Your task to perform on an android device: Open Android settings Image 0: 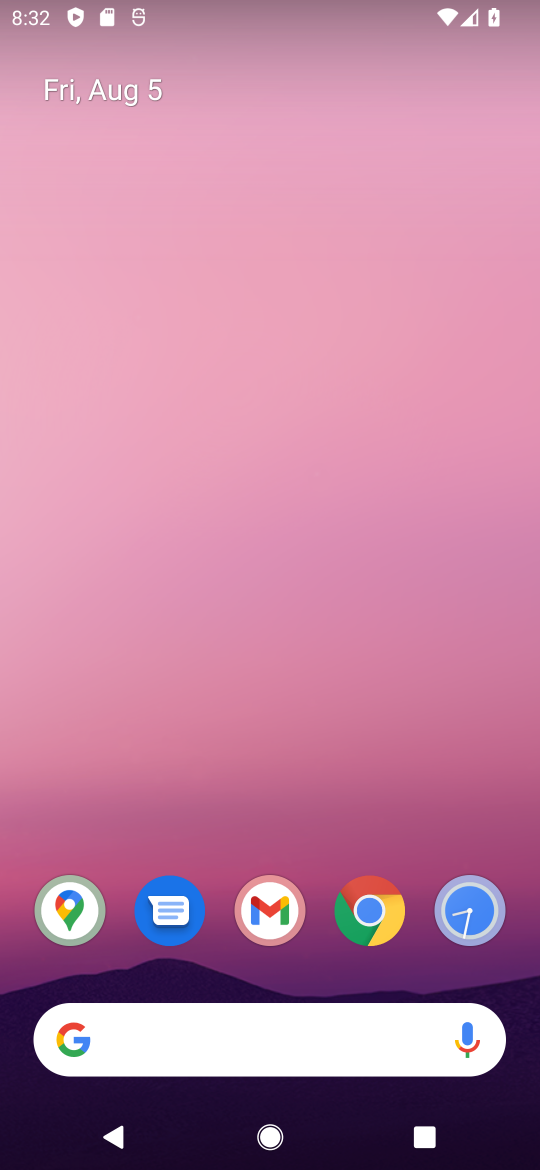
Step 0: press home button
Your task to perform on an android device: Open Android settings Image 1: 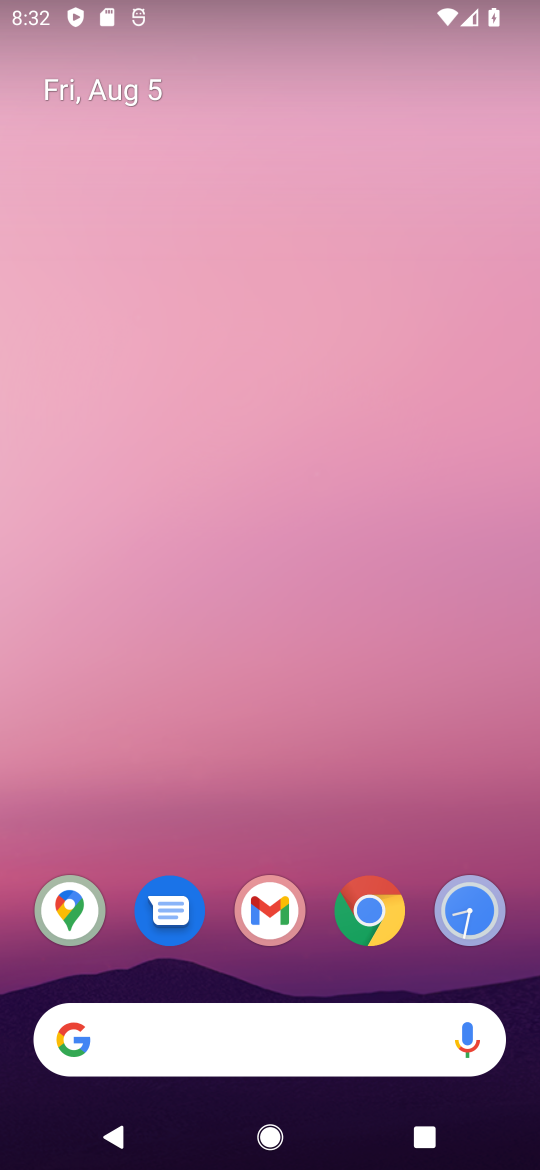
Step 1: drag from (257, 1040) to (393, 96)
Your task to perform on an android device: Open Android settings Image 2: 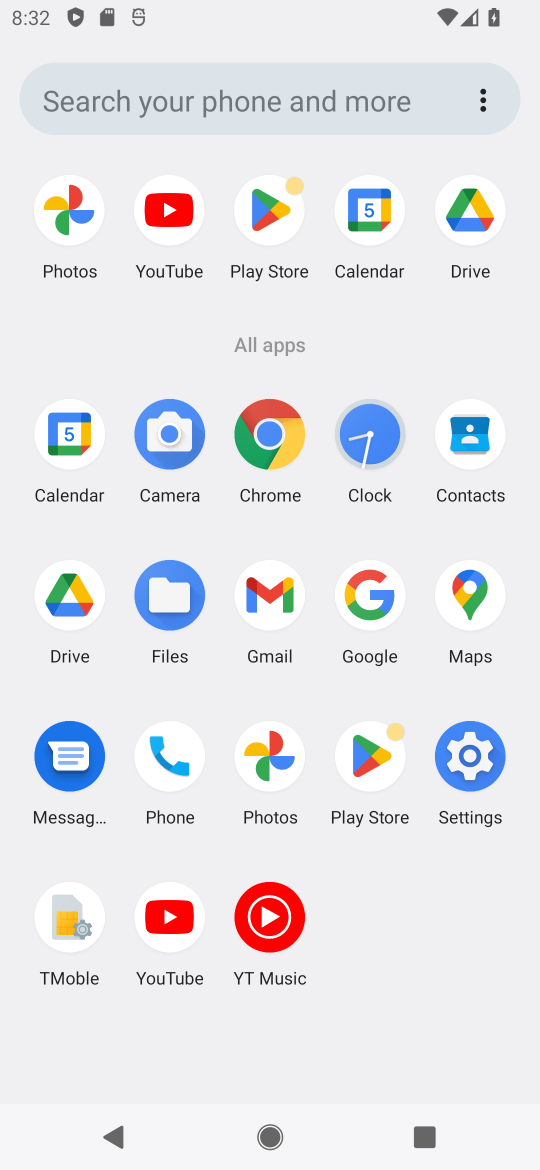
Step 2: click (470, 775)
Your task to perform on an android device: Open Android settings Image 3: 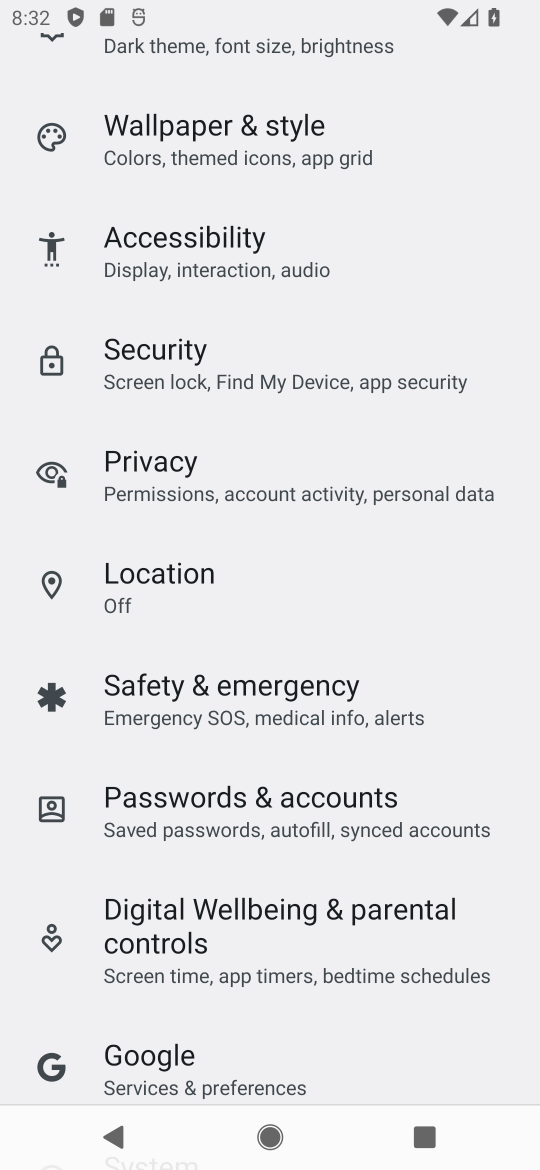
Step 3: task complete